Your task to perform on an android device: change alarm snooze length Image 0: 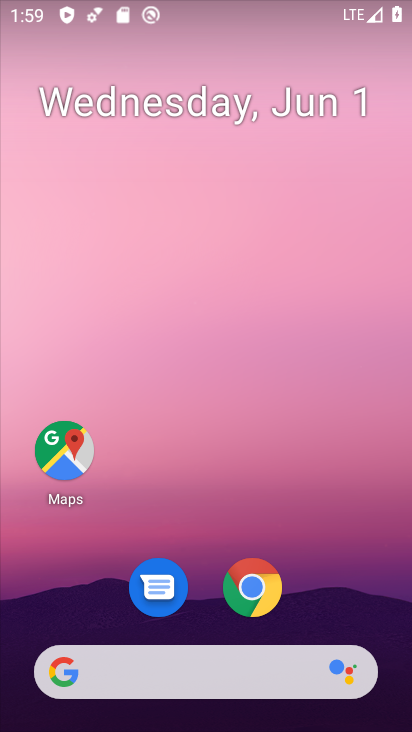
Step 0: drag from (227, 675) to (227, 240)
Your task to perform on an android device: change alarm snooze length Image 1: 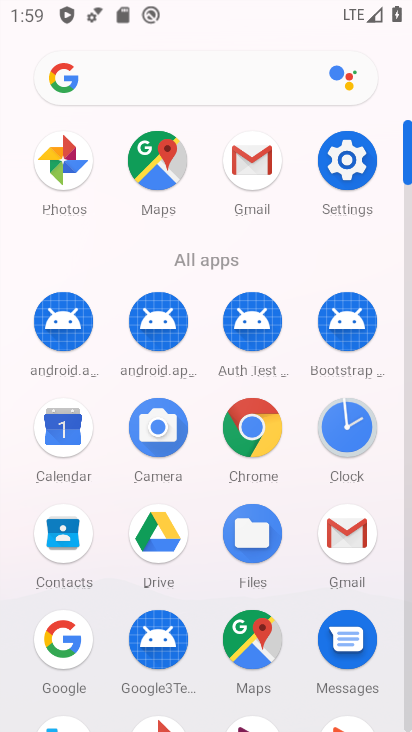
Step 1: click (344, 437)
Your task to perform on an android device: change alarm snooze length Image 2: 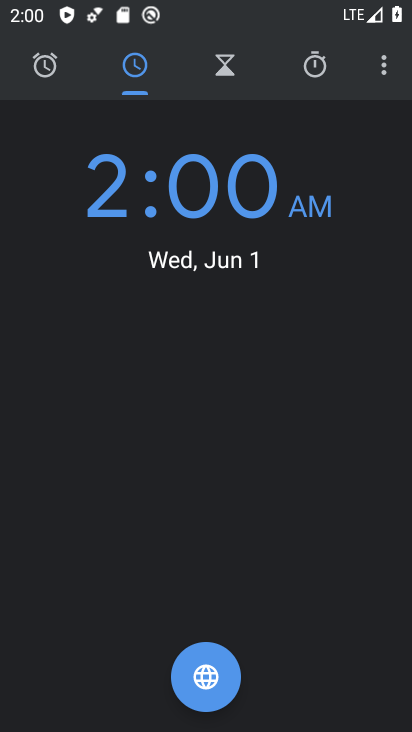
Step 2: click (372, 69)
Your task to perform on an android device: change alarm snooze length Image 3: 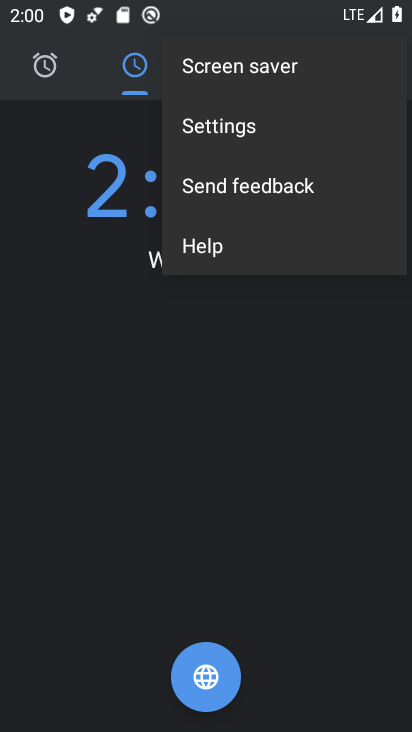
Step 3: click (237, 125)
Your task to perform on an android device: change alarm snooze length Image 4: 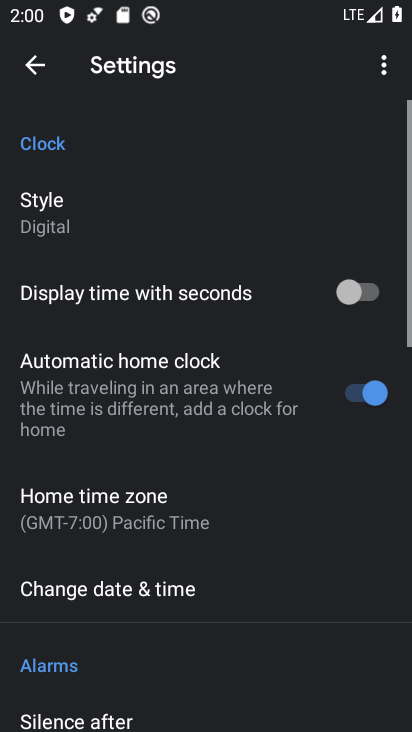
Step 4: drag from (231, 530) to (182, 147)
Your task to perform on an android device: change alarm snooze length Image 5: 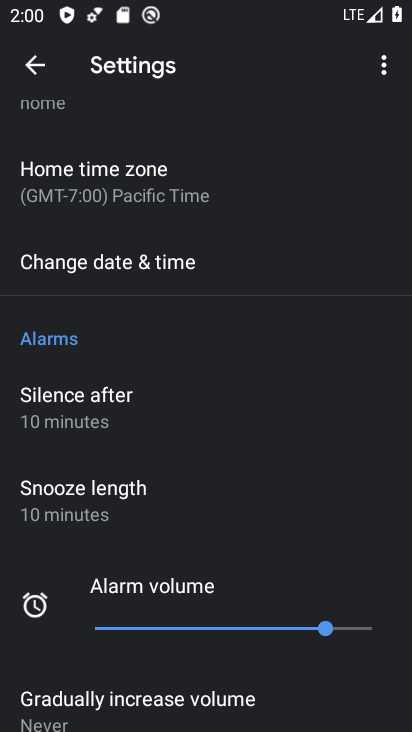
Step 5: click (164, 496)
Your task to perform on an android device: change alarm snooze length Image 6: 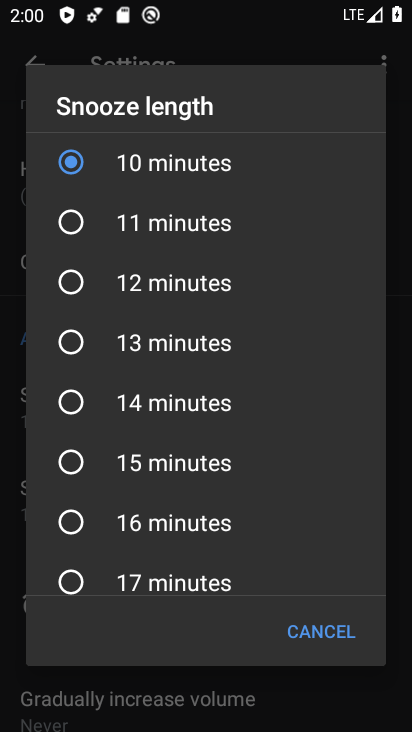
Step 6: click (156, 257)
Your task to perform on an android device: change alarm snooze length Image 7: 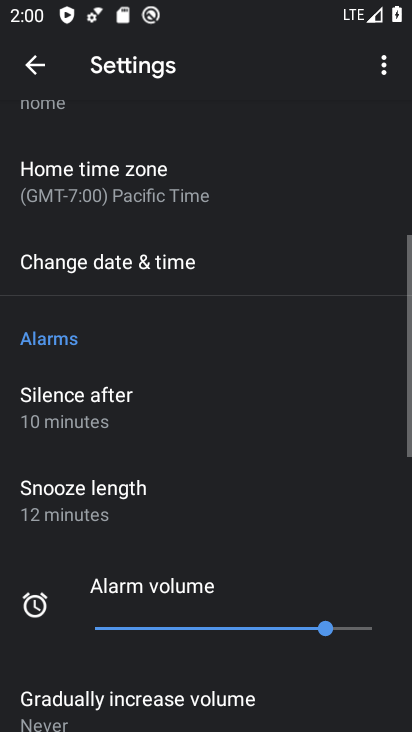
Step 7: task complete